Your task to perform on an android device: See recent photos Image 0: 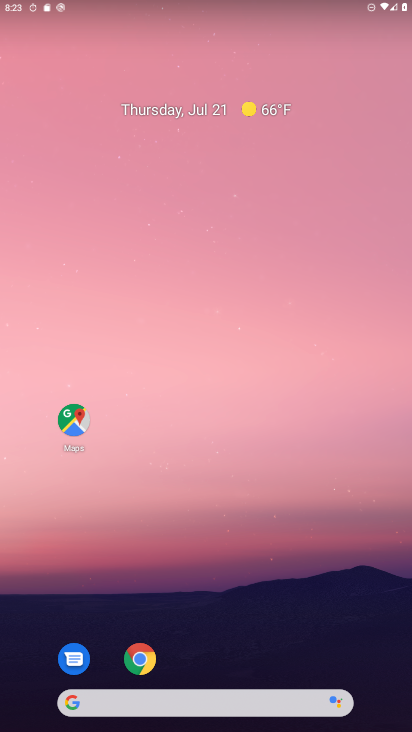
Step 0: drag from (166, 668) to (246, 85)
Your task to perform on an android device: See recent photos Image 1: 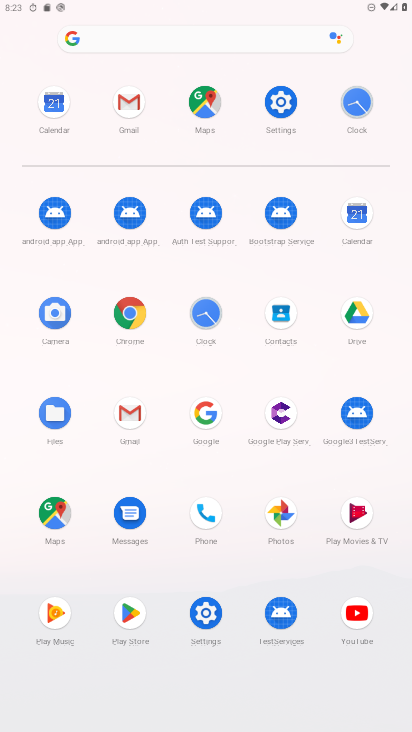
Step 1: click (280, 511)
Your task to perform on an android device: See recent photos Image 2: 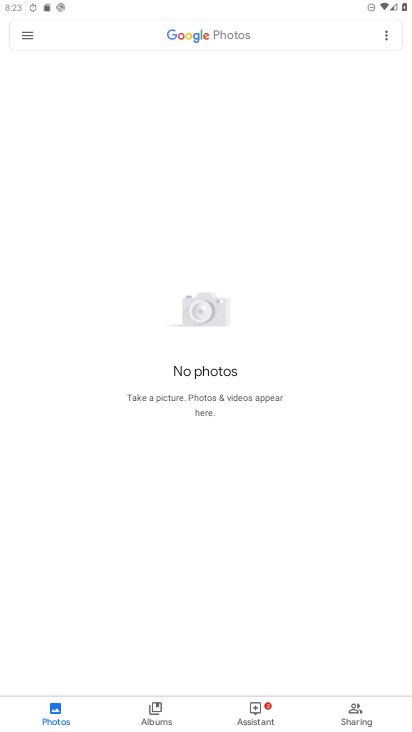
Step 2: drag from (189, 449) to (218, 288)
Your task to perform on an android device: See recent photos Image 3: 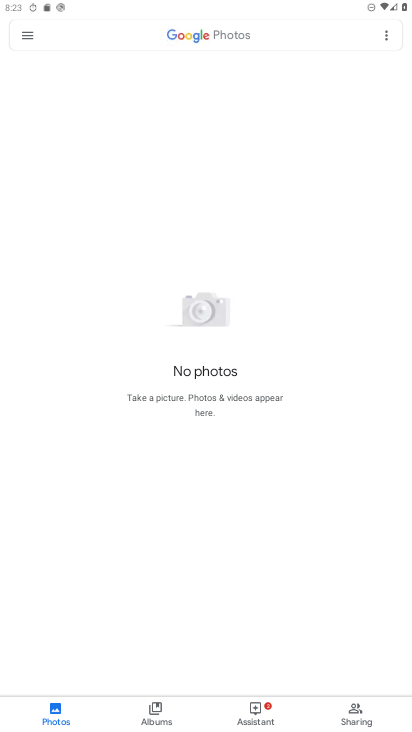
Step 3: click (222, 239)
Your task to perform on an android device: See recent photos Image 4: 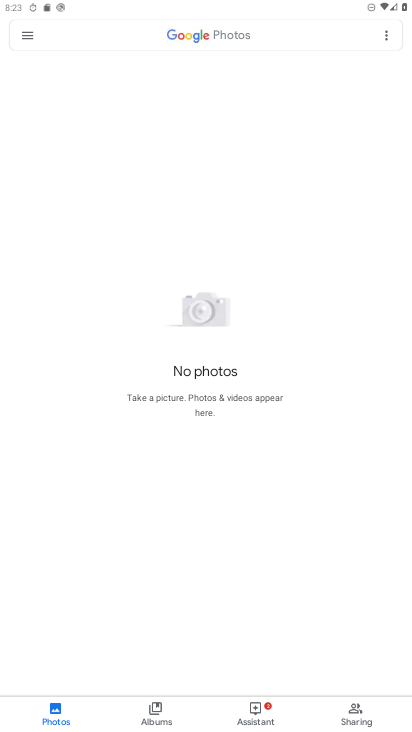
Step 4: click (223, 239)
Your task to perform on an android device: See recent photos Image 5: 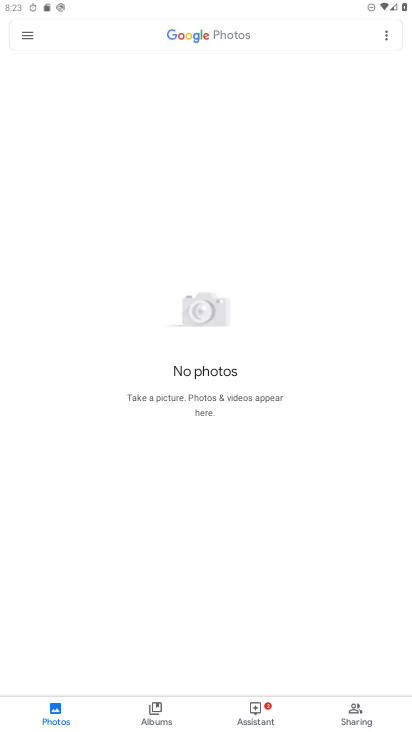
Step 5: click (149, 722)
Your task to perform on an android device: See recent photos Image 6: 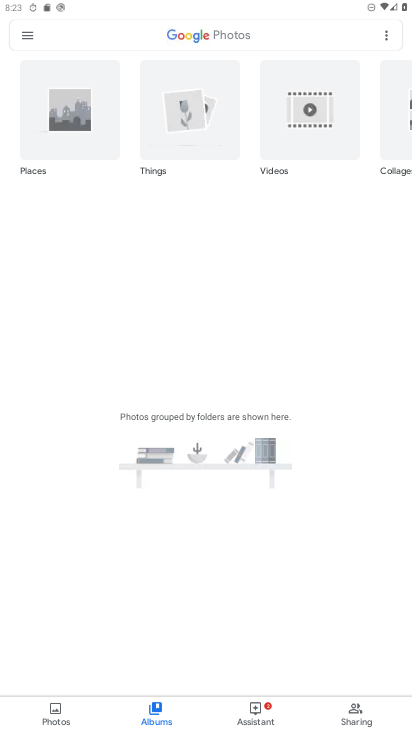
Step 6: click (52, 720)
Your task to perform on an android device: See recent photos Image 7: 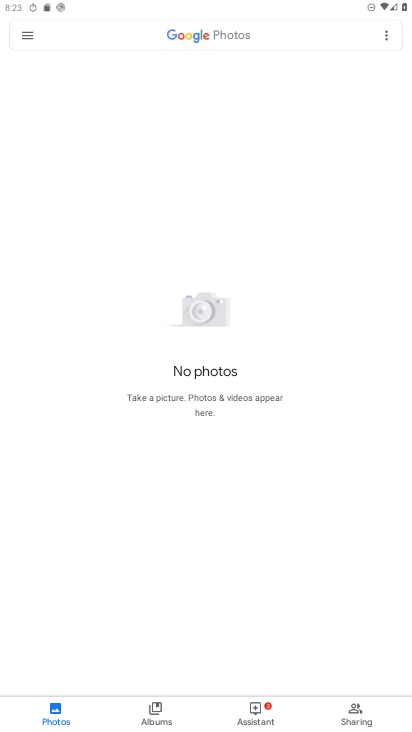
Step 7: task complete